Your task to perform on an android device: empty trash in the gmail app Image 0: 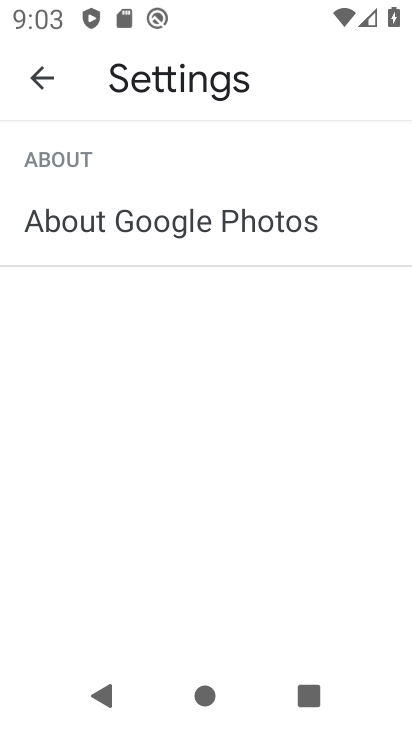
Step 0: press home button
Your task to perform on an android device: empty trash in the gmail app Image 1: 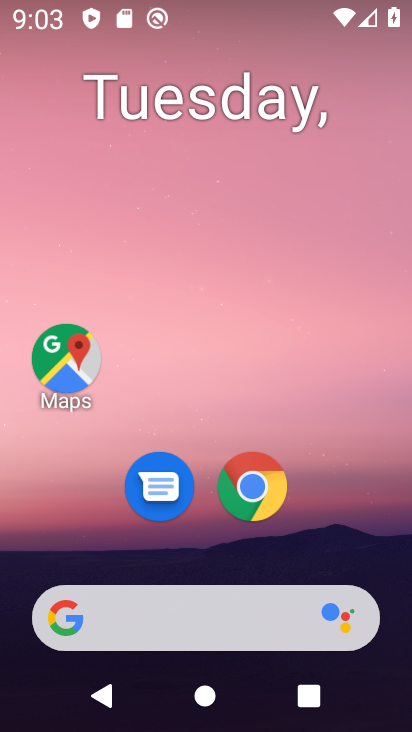
Step 1: drag from (310, 559) to (347, 209)
Your task to perform on an android device: empty trash in the gmail app Image 2: 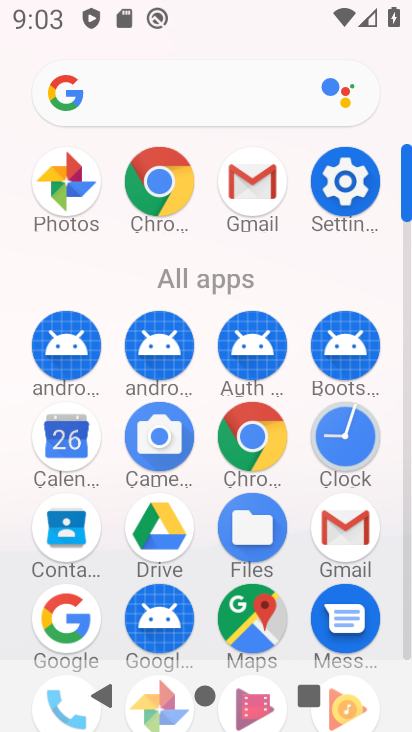
Step 2: click (260, 199)
Your task to perform on an android device: empty trash in the gmail app Image 3: 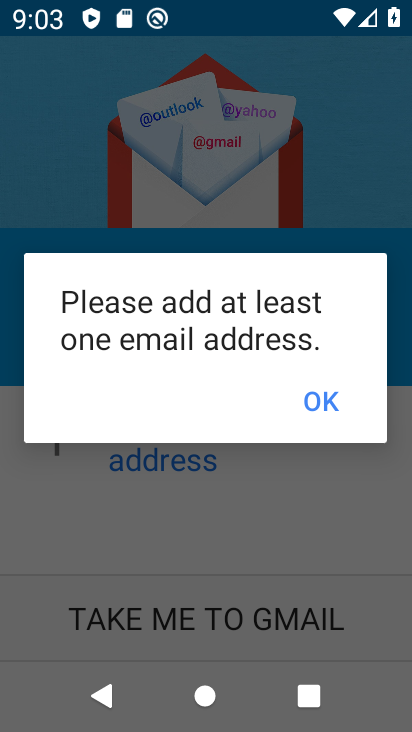
Step 3: task complete